Your task to perform on an android device: toggle notification dots Image 0: 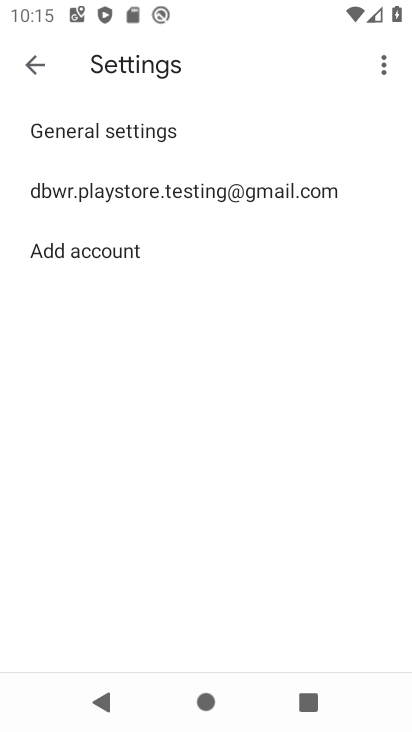
Step 0: press home button
Your task to perform on an android device: toggle notification dots Image 1: 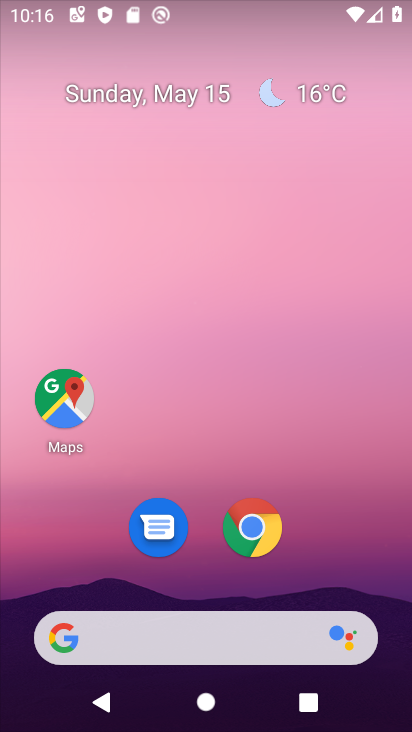
Step 1: drag from (339, 579) to (314, 18)
Your task to perform on an android device: toggle notification dots Image 2: 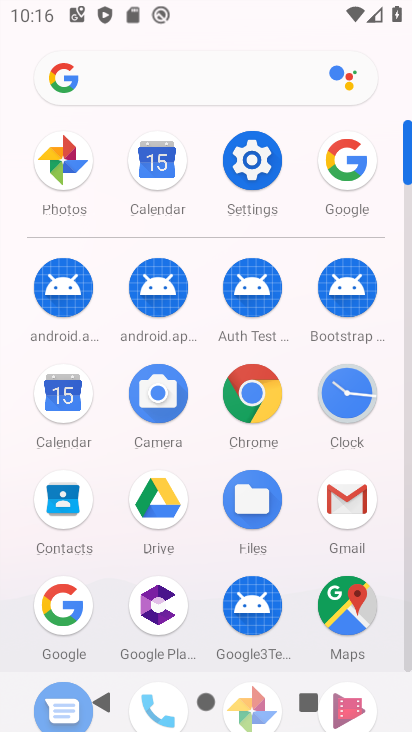
Step 2: click (258, 167)
Your task to perform on an android device: toggle notification dots Image 3: 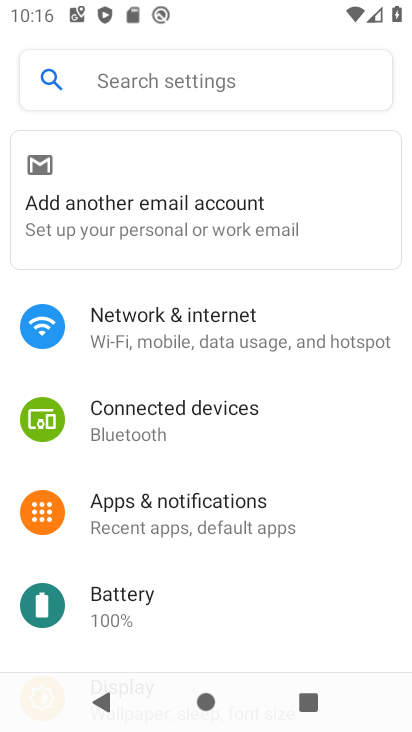
Step 3: click (172, 510)
Your task to perform on an android device: toggle notification dots Image 4: 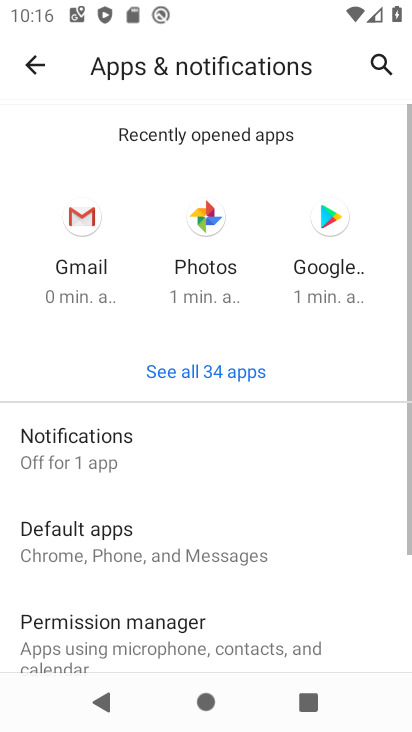
Step 4: click (62, 463)
Your task to perform on an android device: toggle notification dots Image 5: 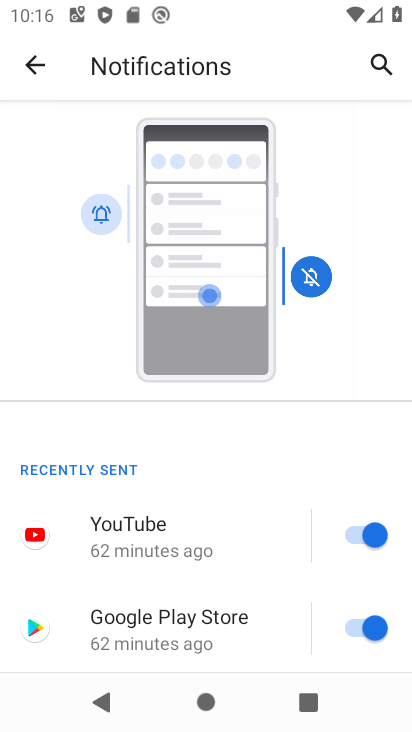
Step 5: drag from (145, 622) to (169, 204)
Your task to perform on an android device: toggle notification dots Image 6: 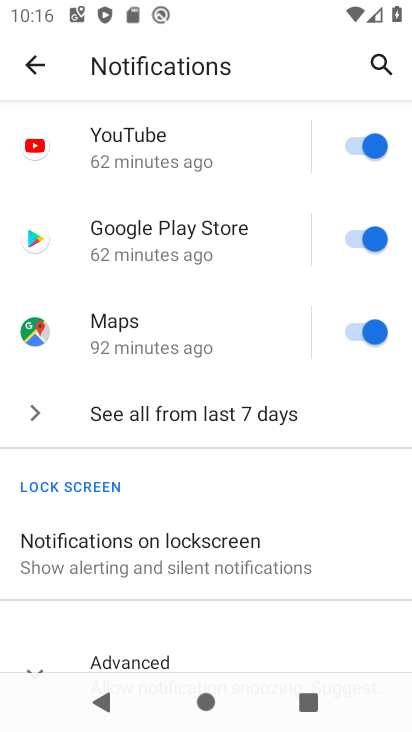
Step 6: drag from (188, 587) to (186, 202)
Your task to perform on an android device: toggle notification dots Image 7: 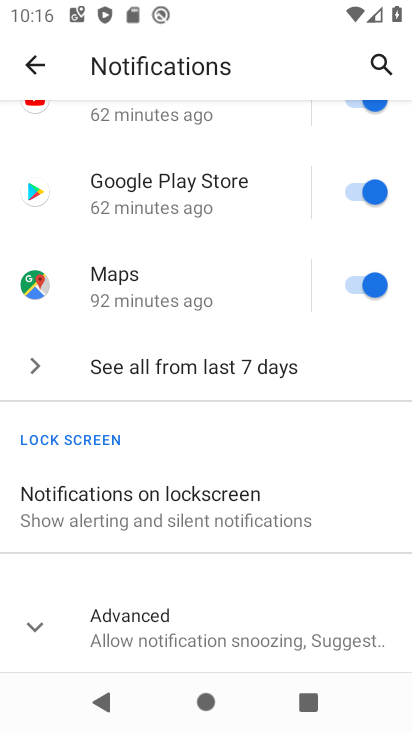
Step 7: click (35, 636)
Your task to perform on an android device: toggle notification dots Image 8: 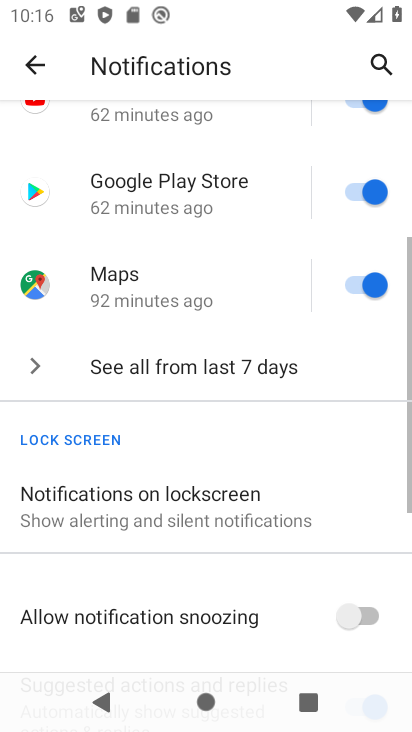
Step 8: drag from (184, 604) to (189, 167)
Your task to perform on an android device: toggle notification dots Image 9: 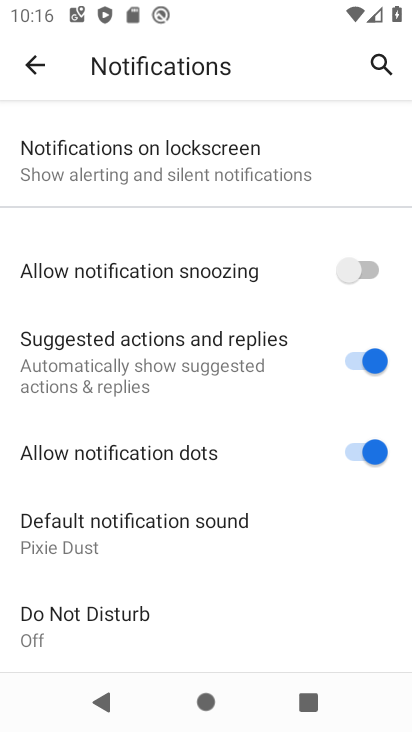
Step 9: click (370, 454)
Your task to perform on an android device: toggle notification dots Image 10: 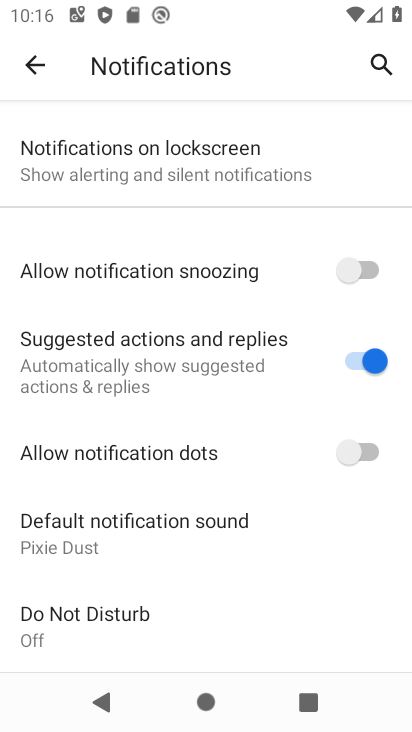
Step 10: task complete